Your task to perform on an android device: star an email in the gmail app Image 0: 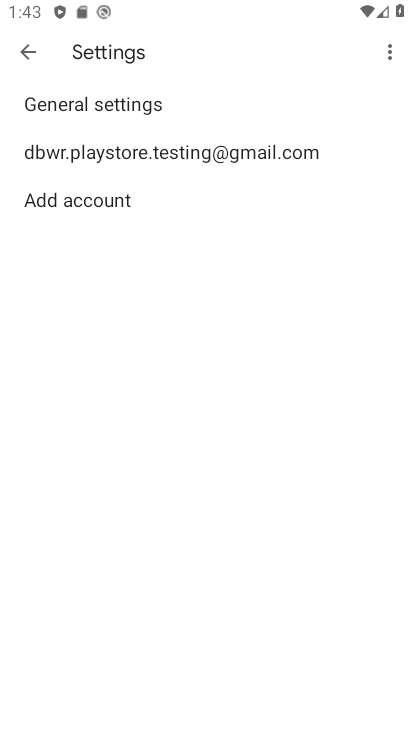
Step 0: press home button
Your task to perform on an android device: star an email in the gmail app Image 1: 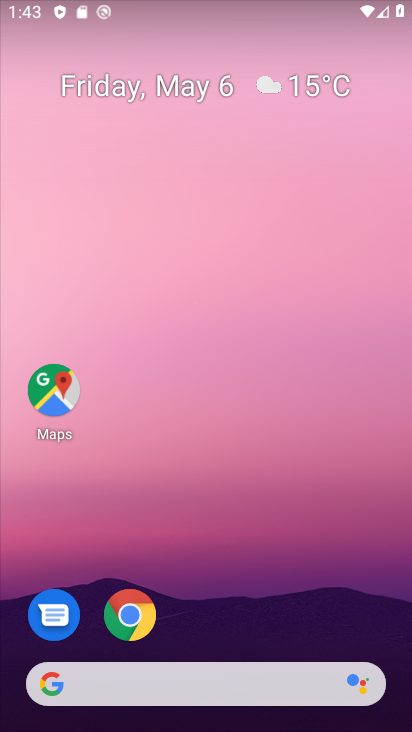
Step 1: drag from (218, 609) to (291, 134)
Your task to perform on an android device: star an email in the gmail app Image 2: 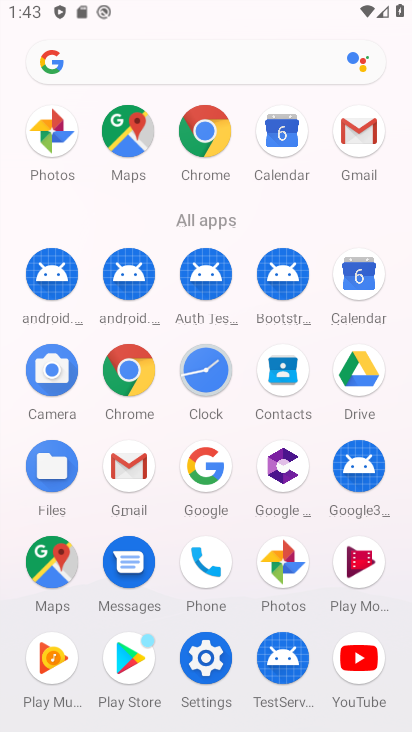
Step 2: click (361, 141)
Your task to perform on an android device: star an email in the gmail app Image 3: 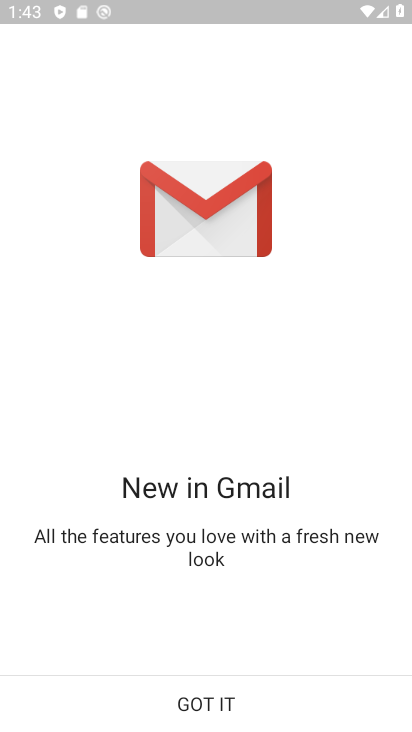
Step 3: click (200, 713)
Your task to perform on an android device: star an email in the gmail app Image 4: 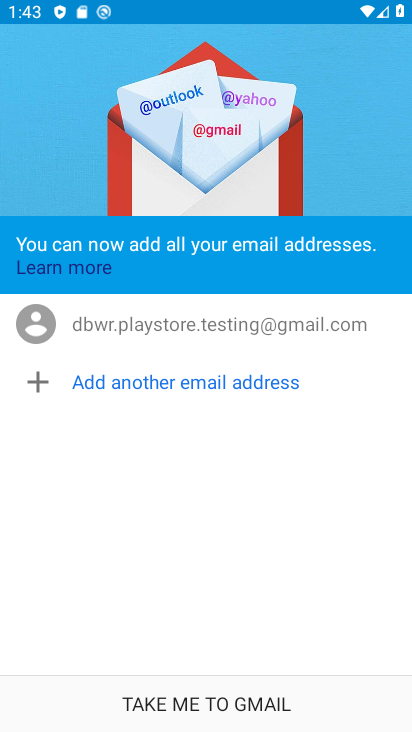
Step 4: click (238, 710)
Your task to perform on an android device: star an email in the gmail app Image 5: 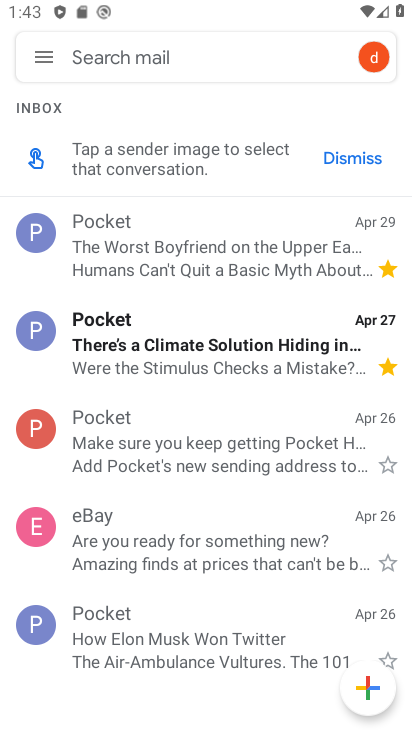
Step 5: click (136, 440)
Your task to perform on an android device: star an email in the gmail app Image 6: 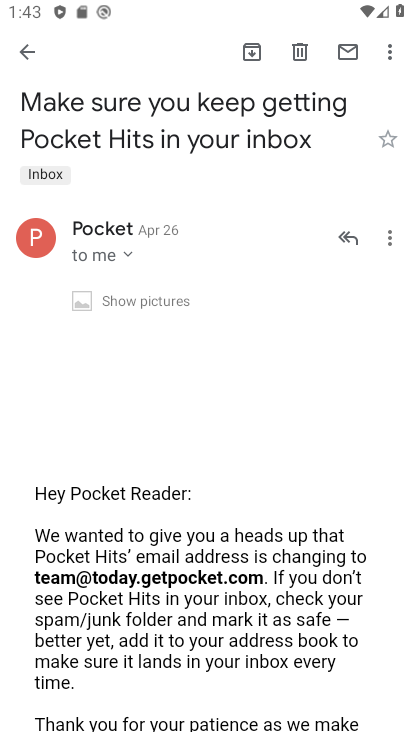
Step 6: click (392, 143)
Your task to perform on an android device: star an email in the gmail app Image 7: 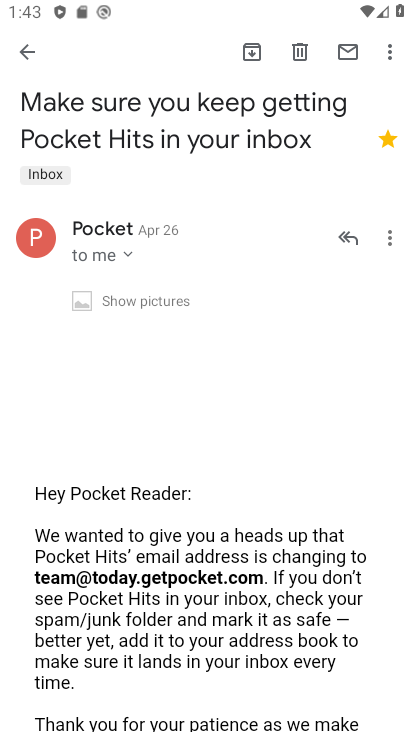
Step 7: task complete